Your task to perform on an android device: Add "bose soundlink" to the cart on walmart.com Image 0: 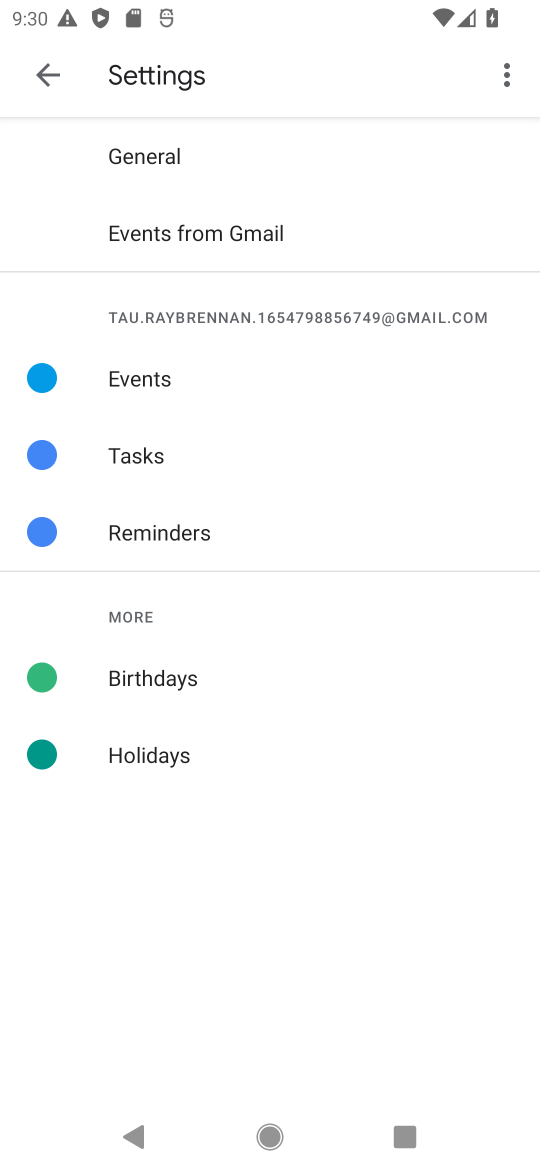
Step 0: press home button
Your task to perform on an android device: Add "bose soundlink" to the cart on walmart.com Image 1: 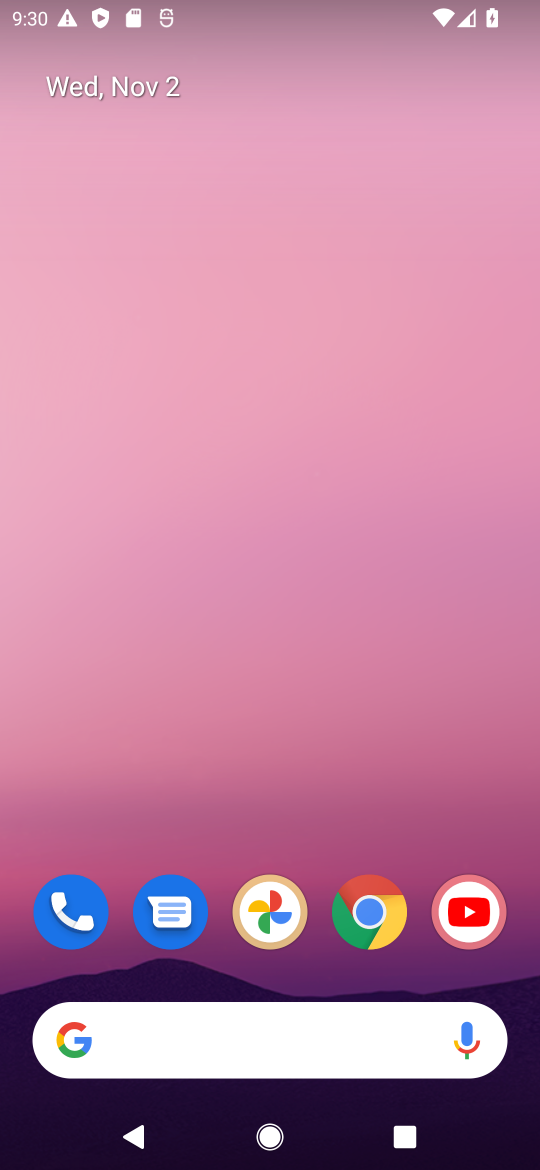
Step 1: drag from (350, 1094) to (372, 104)
Your task to perform on an android device: Add "bose soundlink" to the cart on walmart.com Image 2: 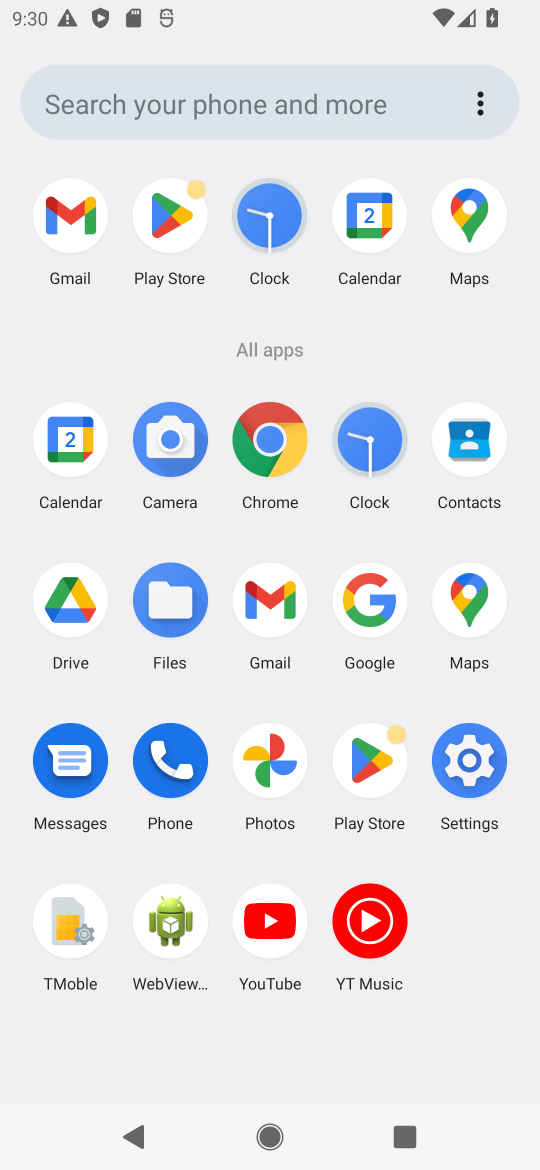
Step 2: click (271, 423)
Your task to perform on an android device: Add "bose soundlink" to the cart on walmart.com Image 3: 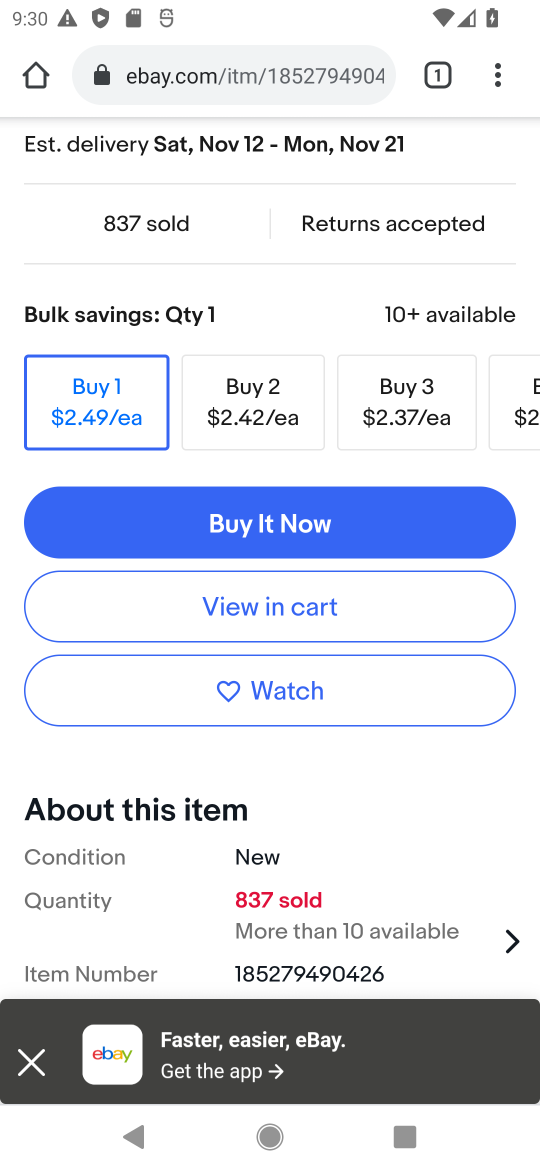
Step 3: click (195, 72)
Your task to perform on an android device: Add "bose soundlink" to the cart on walmart.com Image 4: 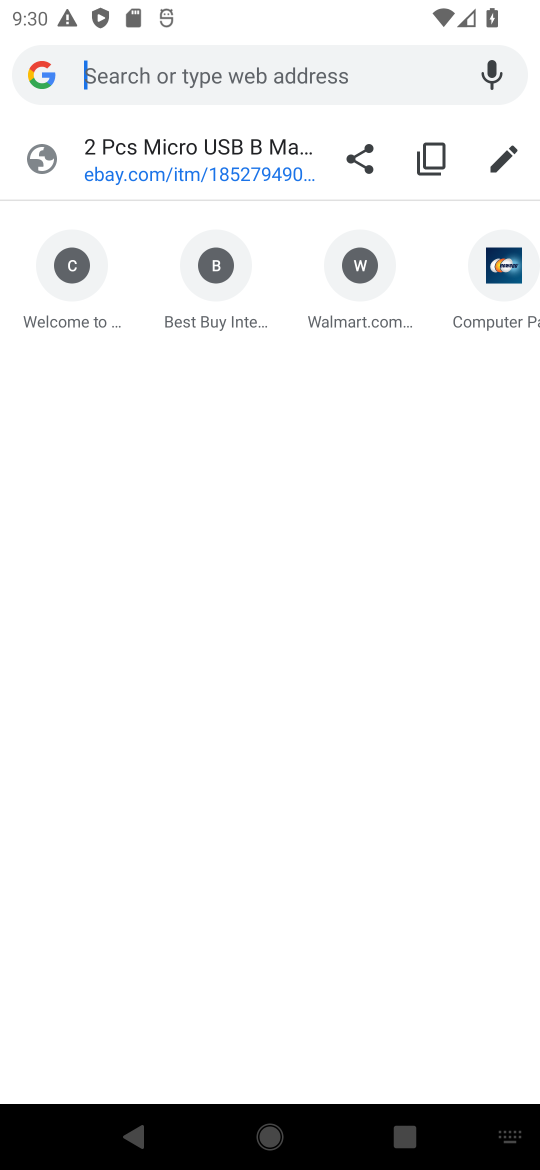
Step 4: type "walmart.com"
Your task to perform on an android device: Add "bose soundlink" to the cart on walmart.com Image 5: 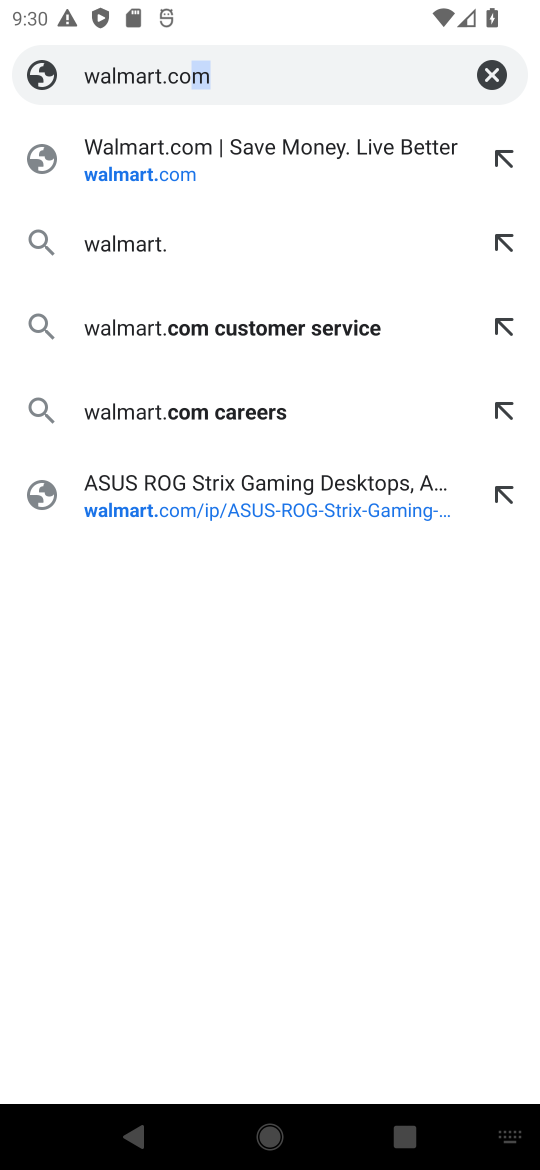
Step 5: type ""
Your task to perform on an android device: Add "bose soundlink" to the cart on walmart.com Image 6: 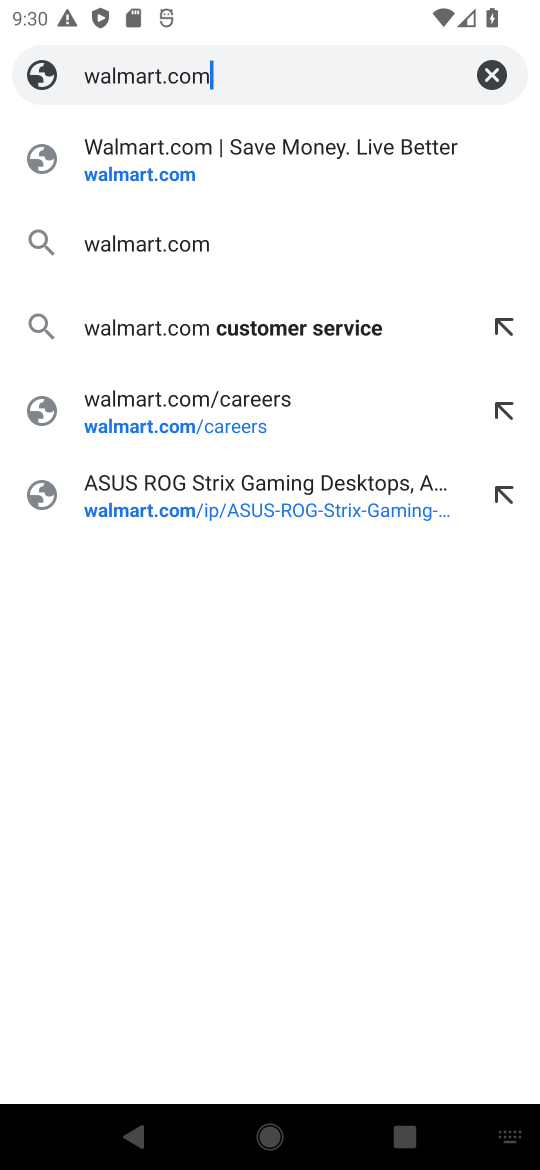
Step 6: click (164, 169)
Your task to perform on an android device: Add "bose soundlink" to the cart on walmart.com Image 7: 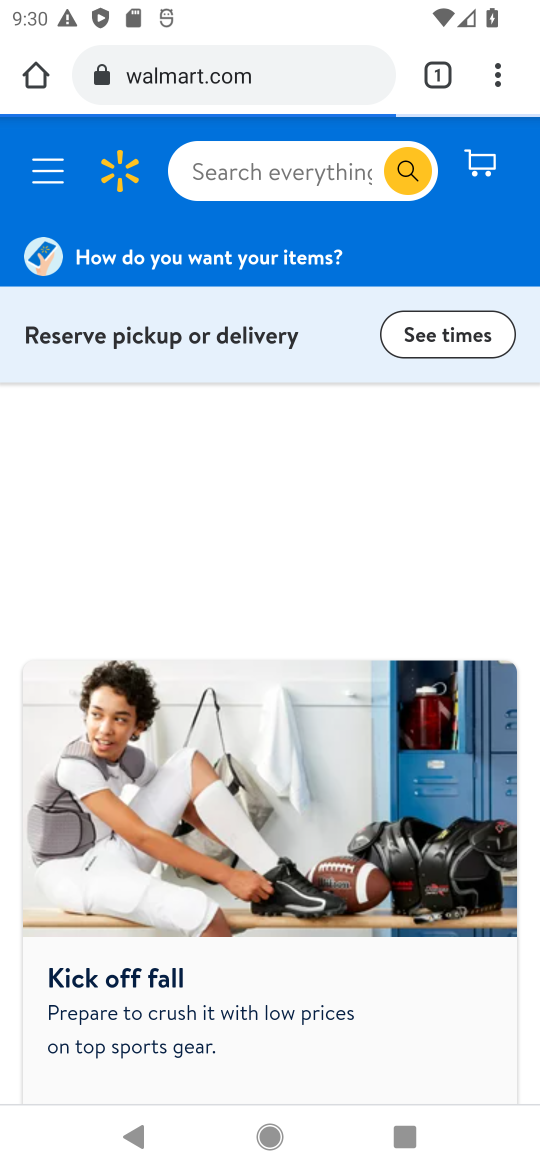
Step 7: click (321, 715)
Your task to perform on an android device: Add "bose soundlink" to the cart on walmart.com Image 8: 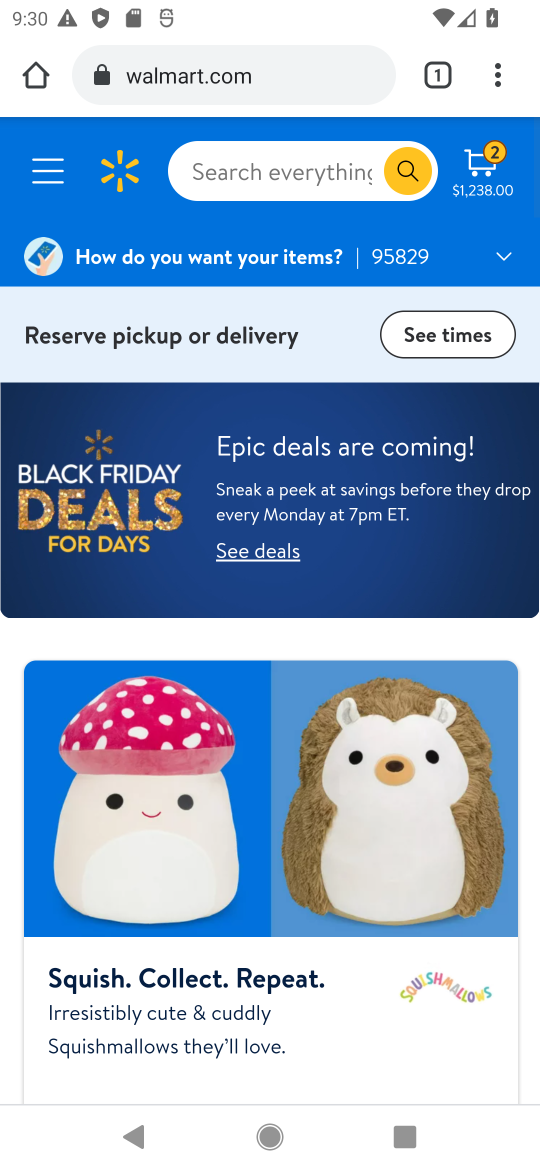
Step 8: click (313, 166)
Your task to perform on an android device: Add "bose soundlink" to the cart on walmart.com Image 9: 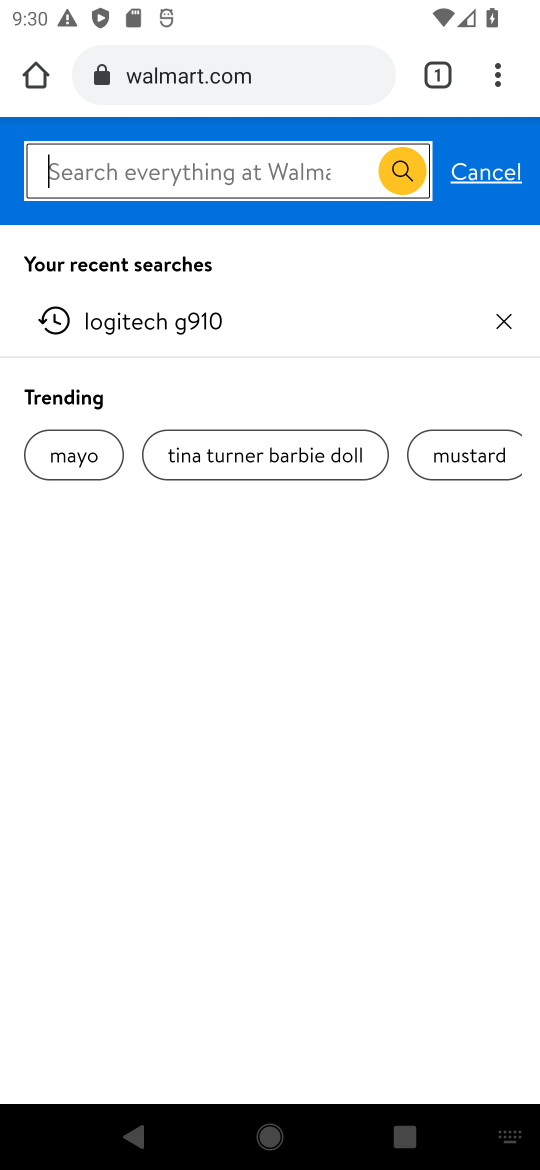
Step 9: type "bose soundlink"
Your task to perform on an android device: Add "bose soundlink" to the cart on walmart.com Image 10: 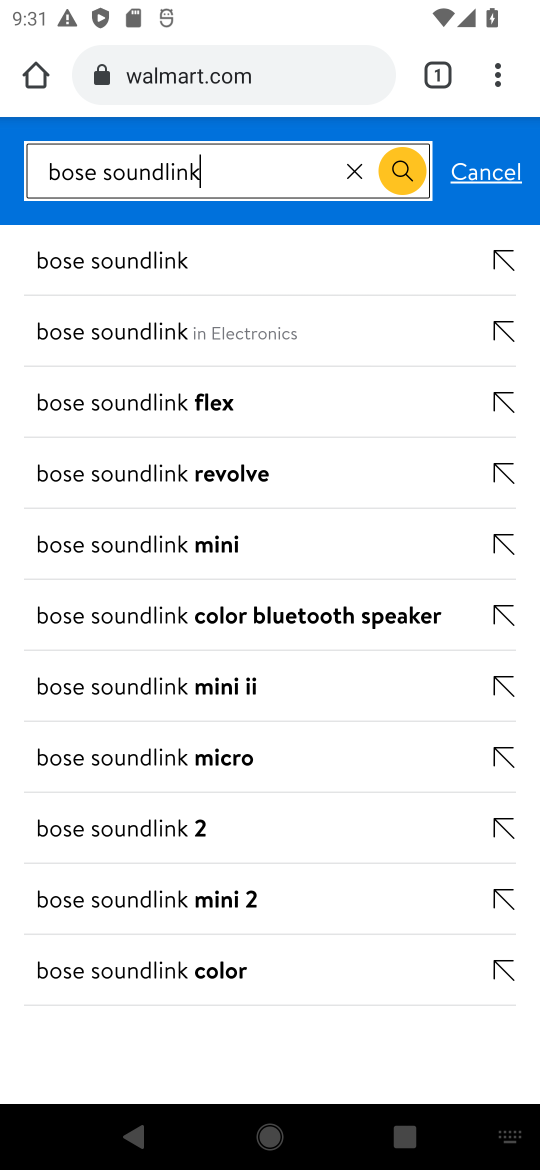
Step 10: click (398, 160)
Your task to perform on an android device: Add "bose soundlink" to the cart on walmart.com Image 11: 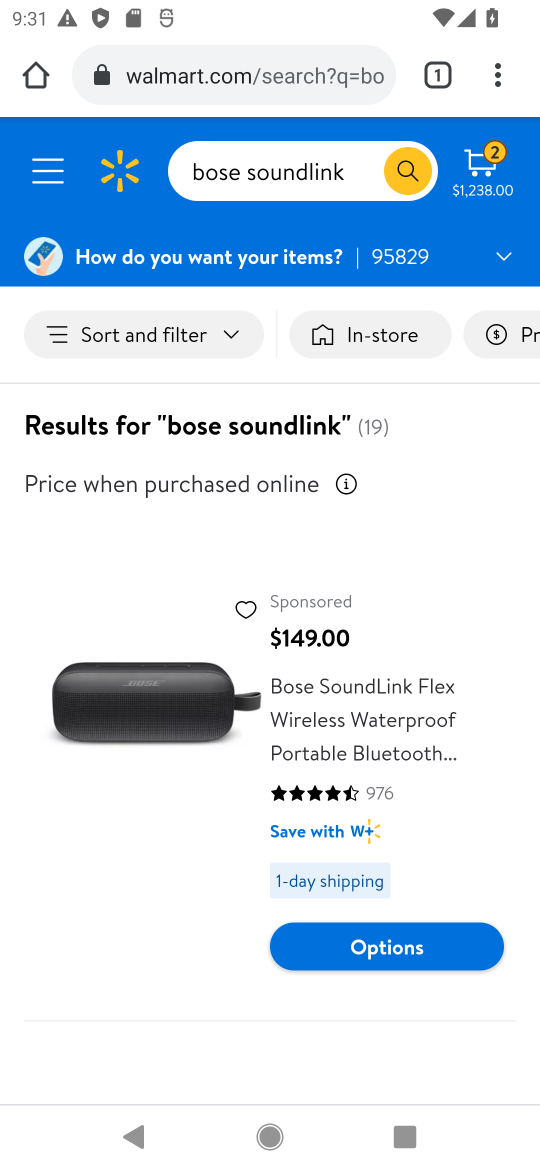
Step 11: click (87, 786)
Your task to perform on an android device: Add "bose soundlink" to the cart on walmart.com Image 12: 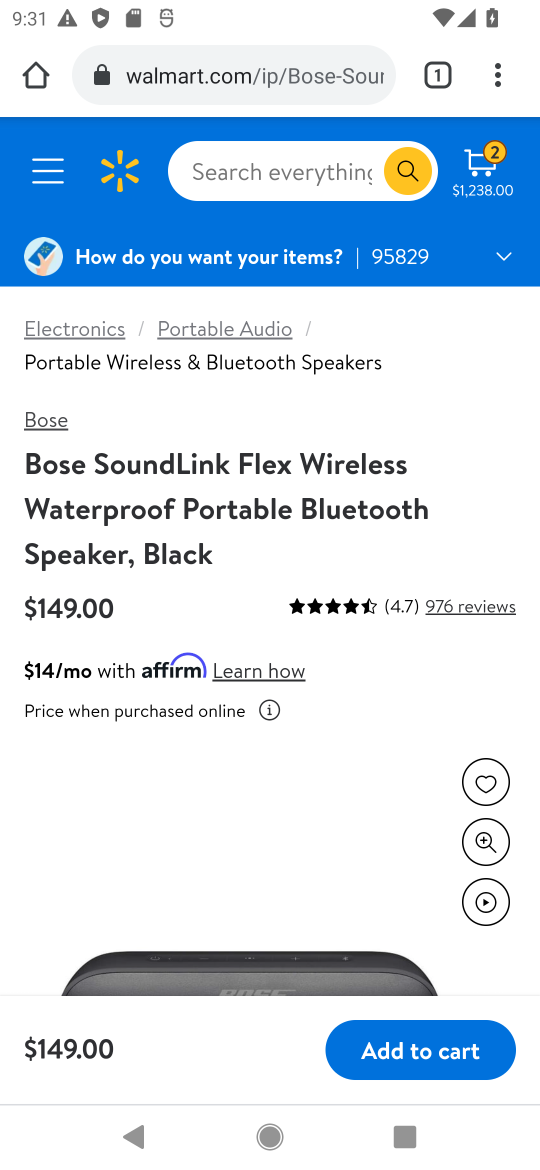
Step 12: click (425, 1052)
Your task to perform on an android device: Add "bose soundlink" to the cart on walmart.com Image 13: 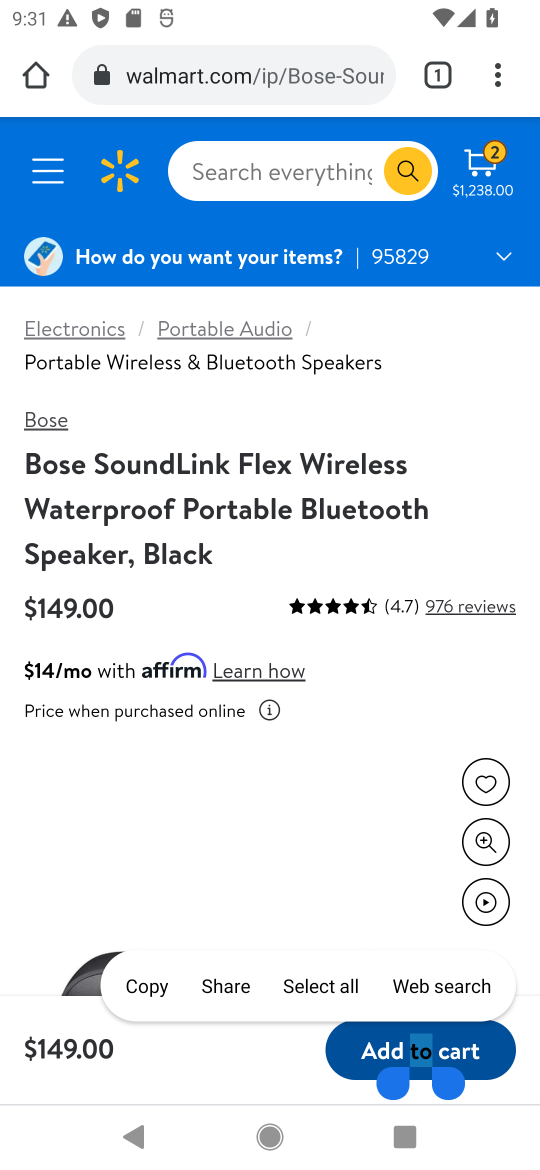
Step 13: click (458, 1048)
Your task to perform on an android device: Add "bose soundlink" to the cart on walmart.com Image 14: 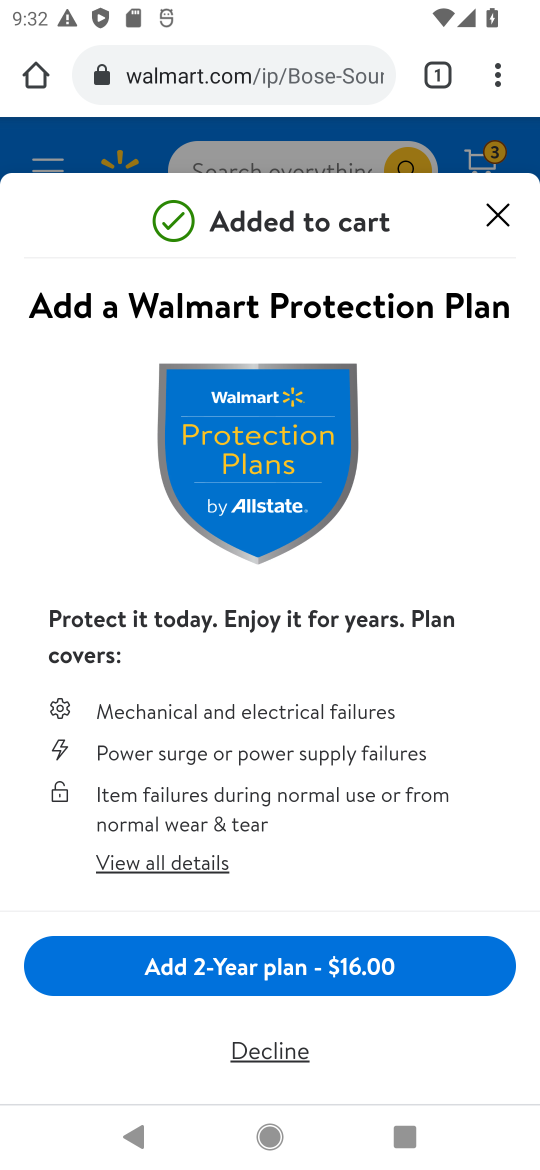
Step 14: task complete